Your task to perform on an android device: Open settings on Google Maps Image 0: 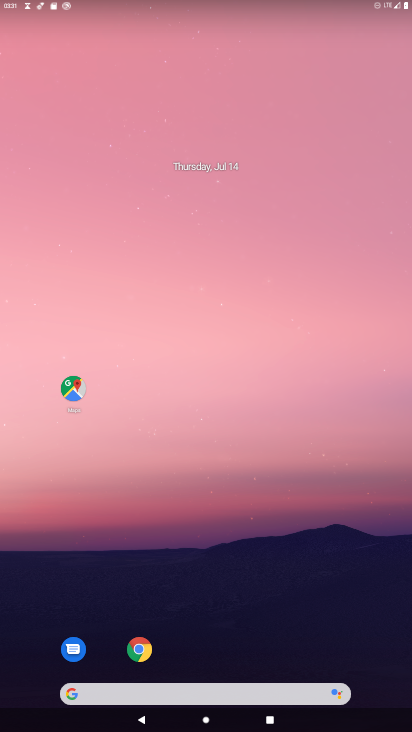
Step 0: drag from (191, 674) to (225, 0)
Your task to perform on an android device: Open settings on Google Maps Image 1: 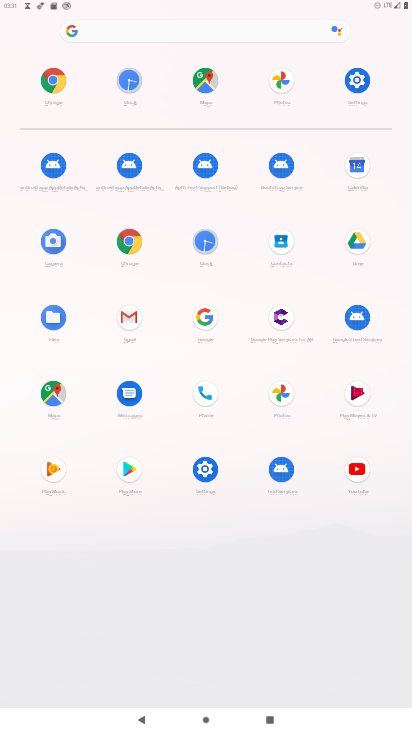
Step 1: click (53, 397)
Your task to perform on an android device: Open settings on Google Maps Image 2: 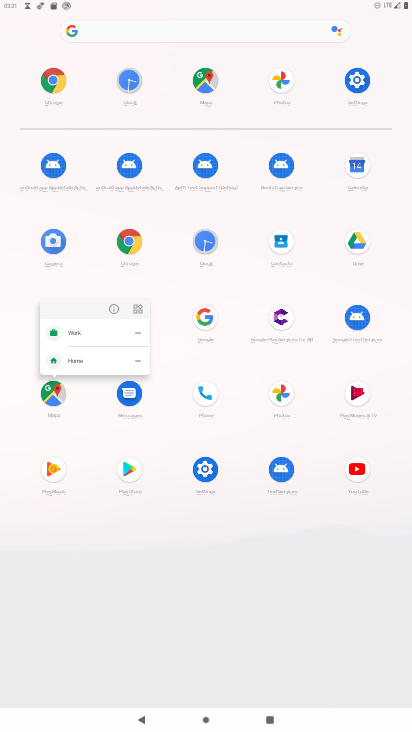
Step 2: click (56, 390)
Your task to perform on an android device: Open settings on Google Maps Image 3: 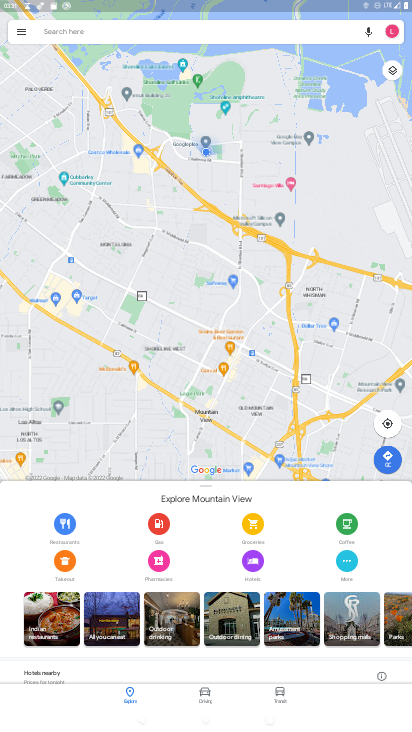
Step 3: click (17, 28)
Your task to perform on an android device: Open settings on Google Maps Image 4: 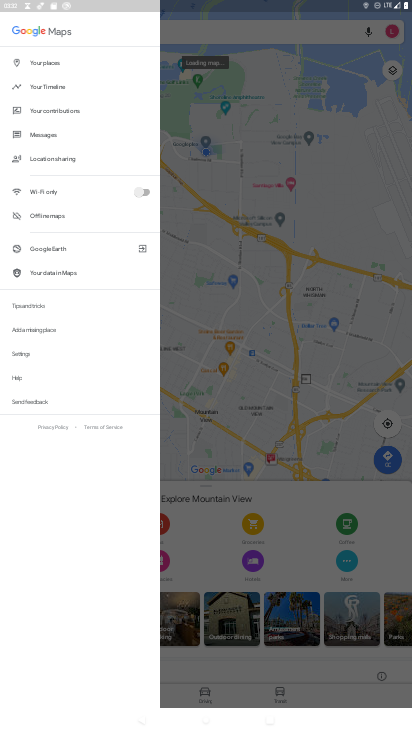
Step 4: click (50, 87)
Your task to perform on an android device: Open settings on Google Maps Image 5: 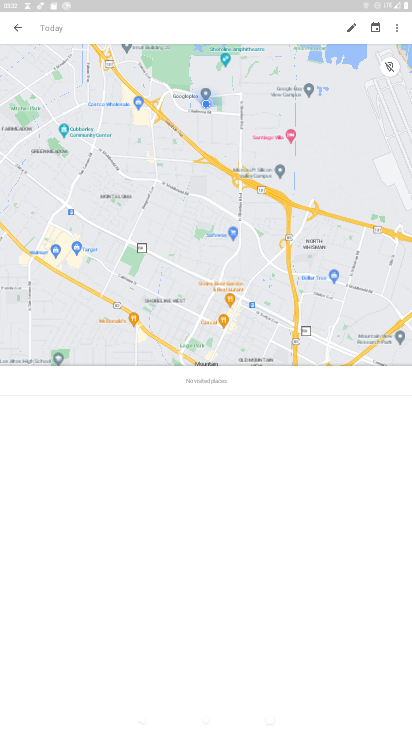
Step 5: click (393, 23)
Your task to perform on an android device: Open settings on Google Maps Image 6: 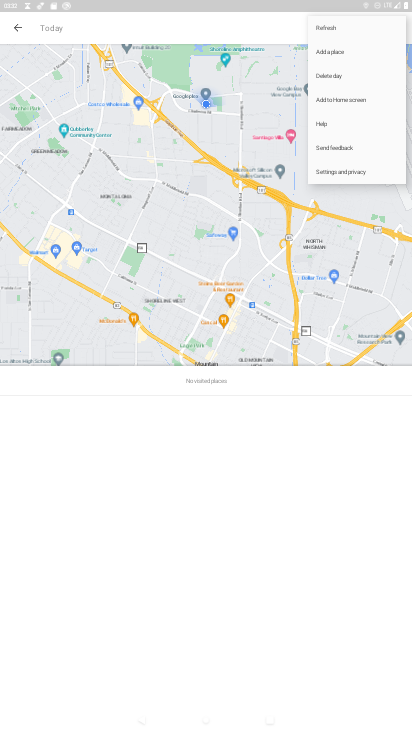
Step 6: click (344, 168)
Your task to perform on an android device: Open settings on Google Maps Image 7: 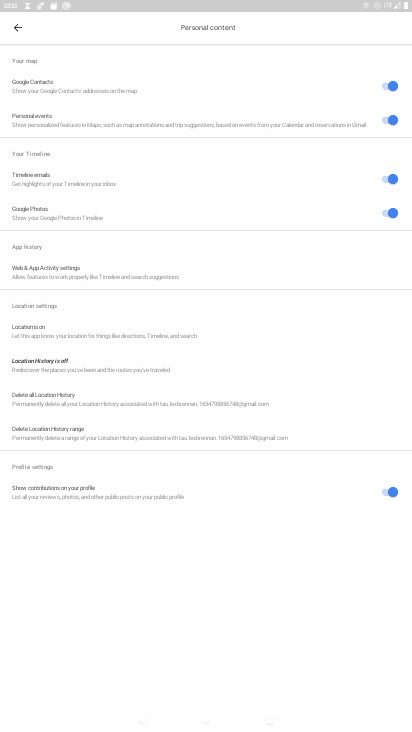
Step 7: task complete